Your task to perform on an android device: Go to Yahoo.com Image 0: 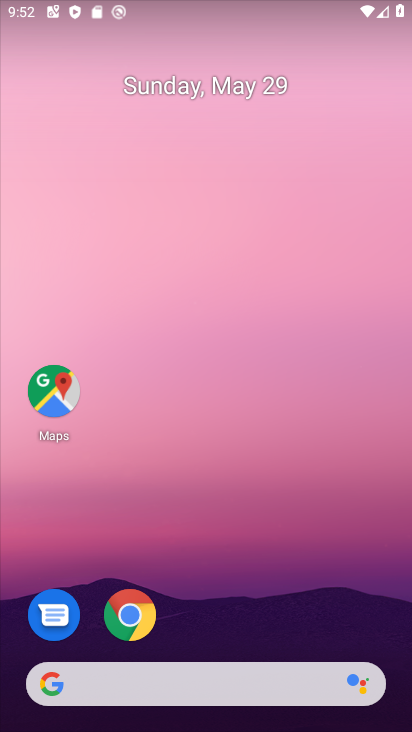
Step 0: click (140, 622)
Your task to perform on an android device: Go to Yahoo.com Image 1: 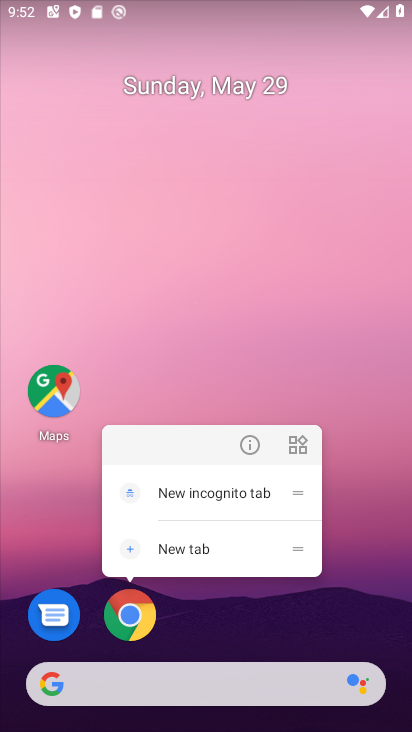
Step 1: click (127, 624)
Your task to perform on an android device: Go to Yahoo.com Image 2: 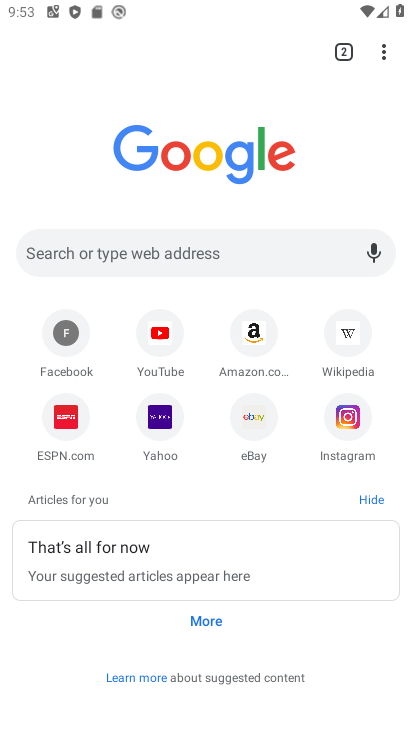
Step 2: click (162, 426)
Your task to perform on an android device: Go to Yahoo.com Image 3: 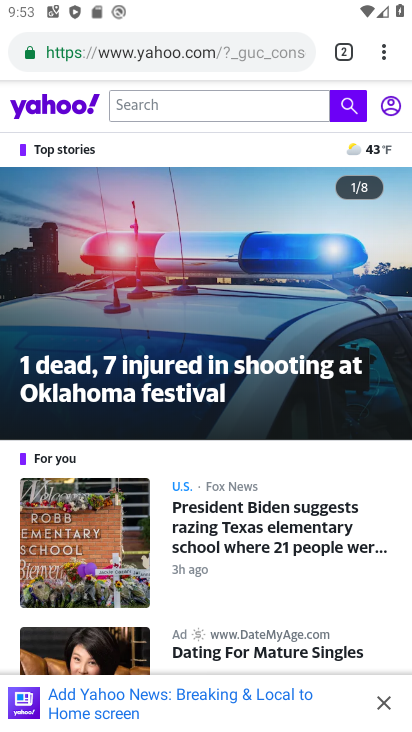
Step 3: task complete